Your task to perform on an android device: open app "Life360: Find Family & Friends" (install if not already installed), go to login, and select forgot password Image 0: 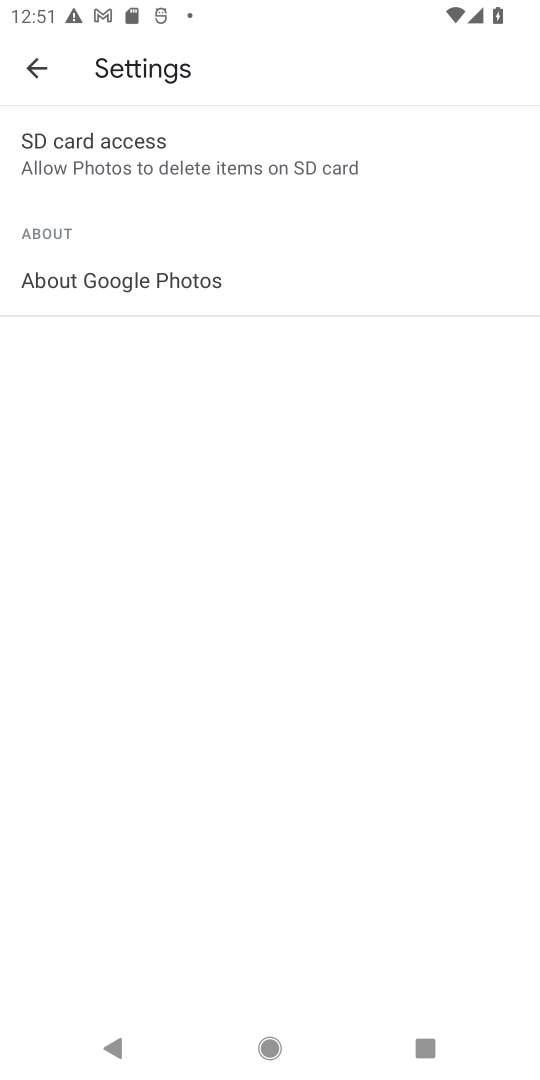
Step 0: press home button
Your task to perform on an android device: open app "Life360: Find Family & Friends" (install if not already installed), go to login, and select forgot password Image 1: 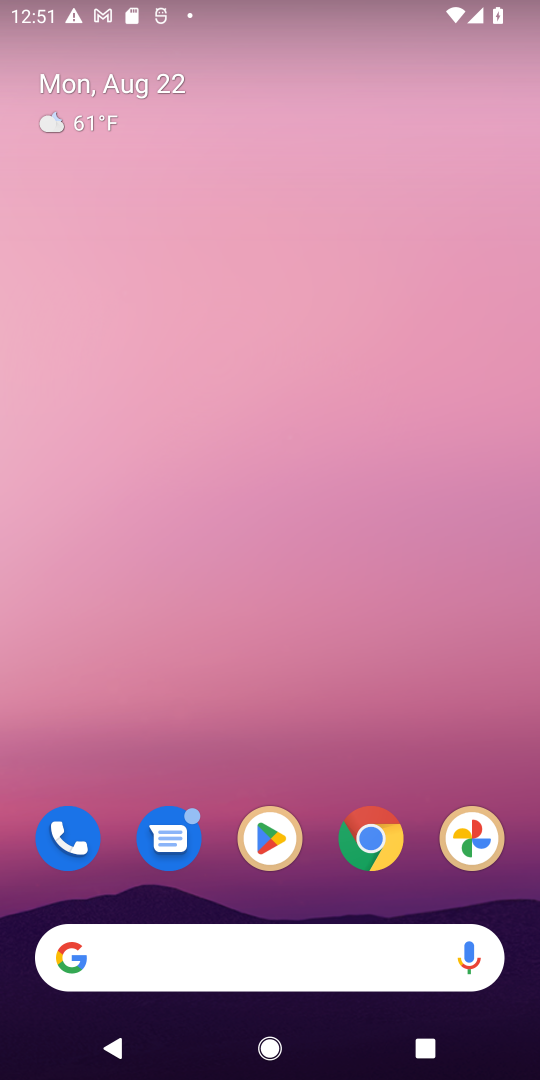
Step 1: click (268, 266)
Your task to perform on an android device: open app "Life360: Find Family & Friends" (install if not already installed), go to login, and select forgot password Image 2: 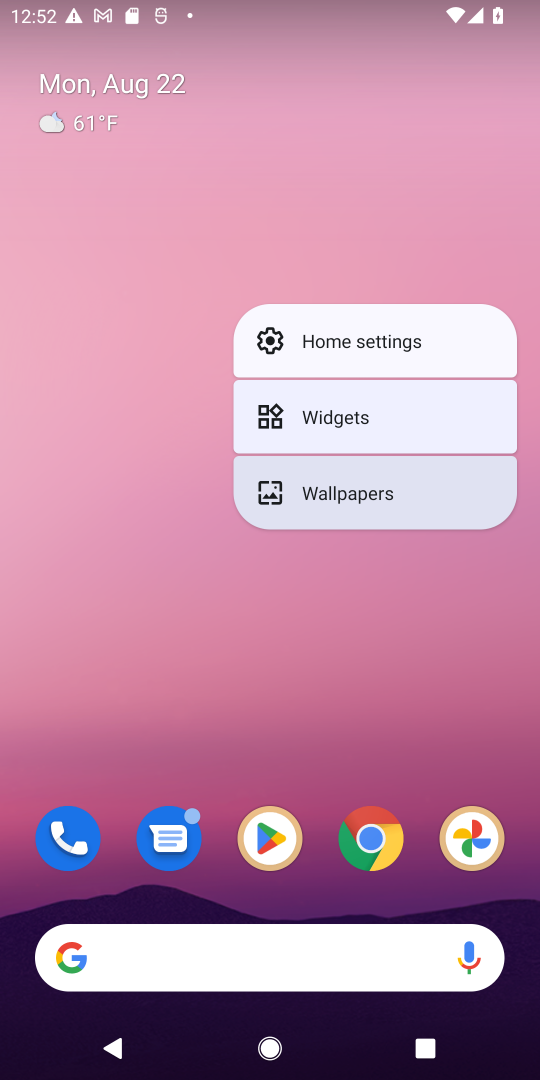
Step 2: drag from (276, 795) to (208, 188)
Your task to perform on an android device: open app "Life360: Find Family & Friends" (install if not already installed), go to login, and select forgot password Image 3: 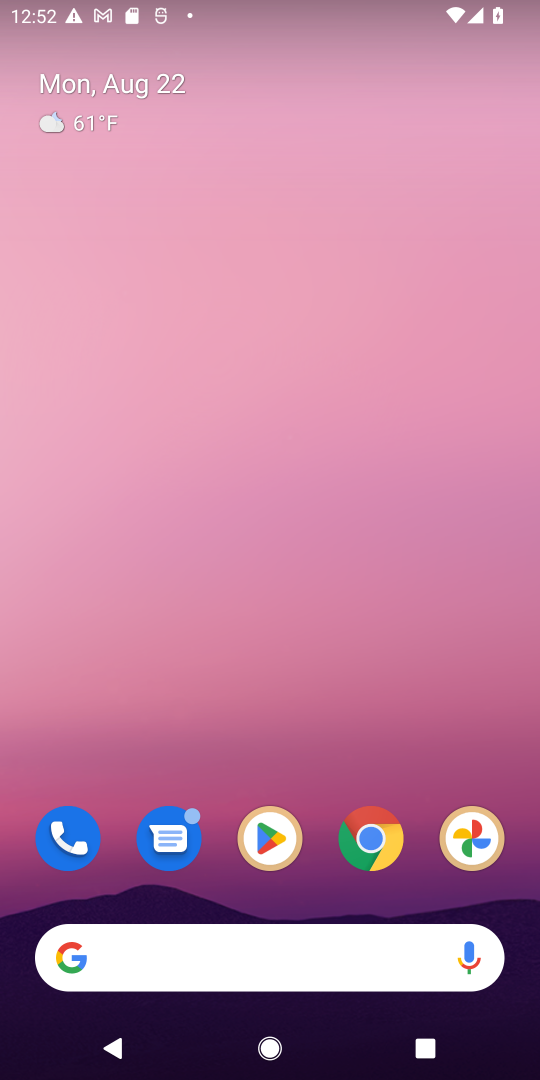
Step 3: drag from (259, 882) to (318, 354)
Your task to perform on an android device: open app "Life360: Find Family & Friends" (install if not already installed), go to login, and select forgot password Image 4: 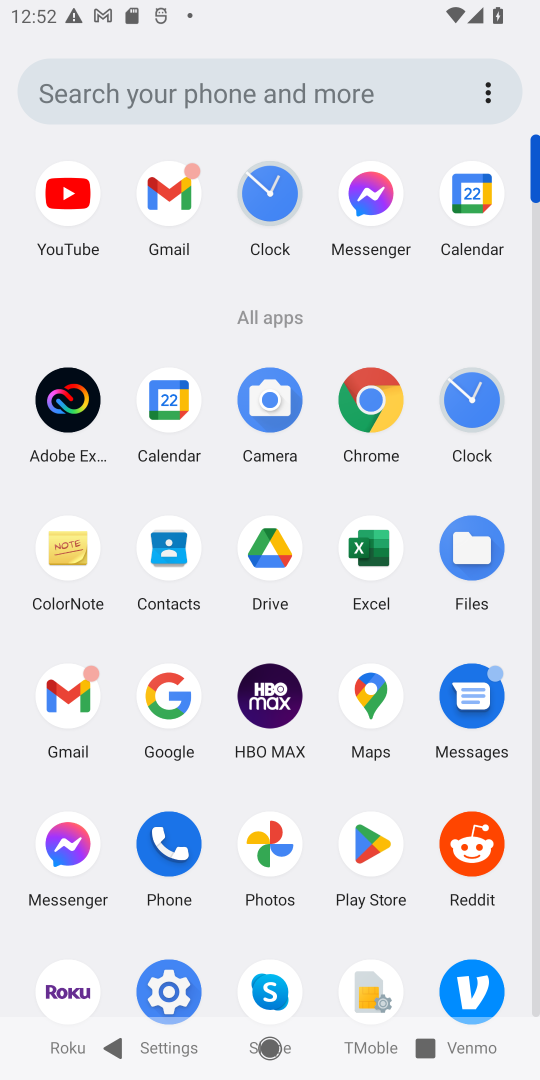
Step 4: click (364, 849)
Your task to perform on an android device: open app "Life360: Find Family & Friends" (install if not already installed), go to login, and select forgot password Image 5: 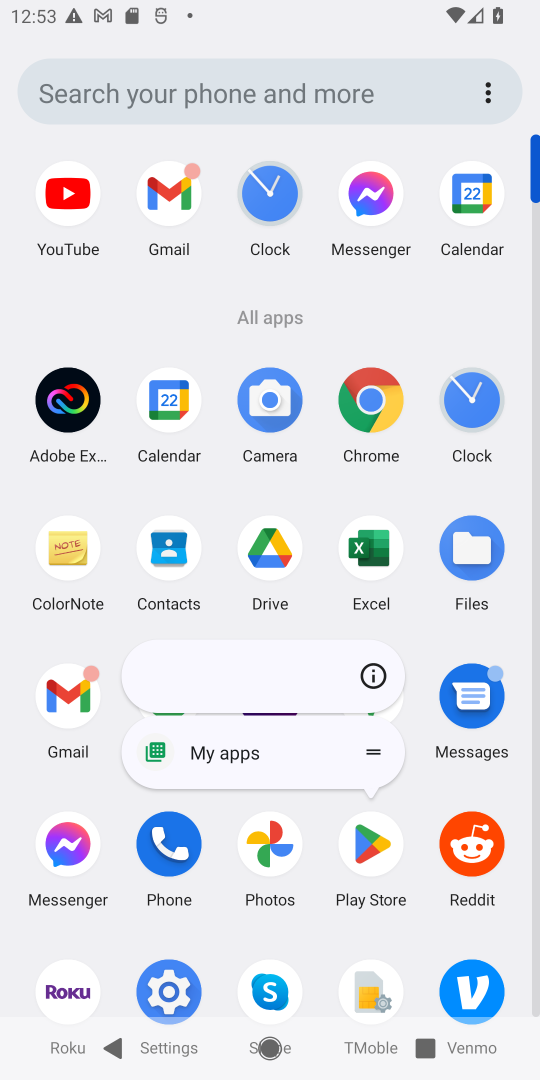
Step 5: click (360, 853)
Your task to perform on an android device: open app "Life360: Find Family & Friends" (install if not already installed), go to login, and select forgot password Image 6: 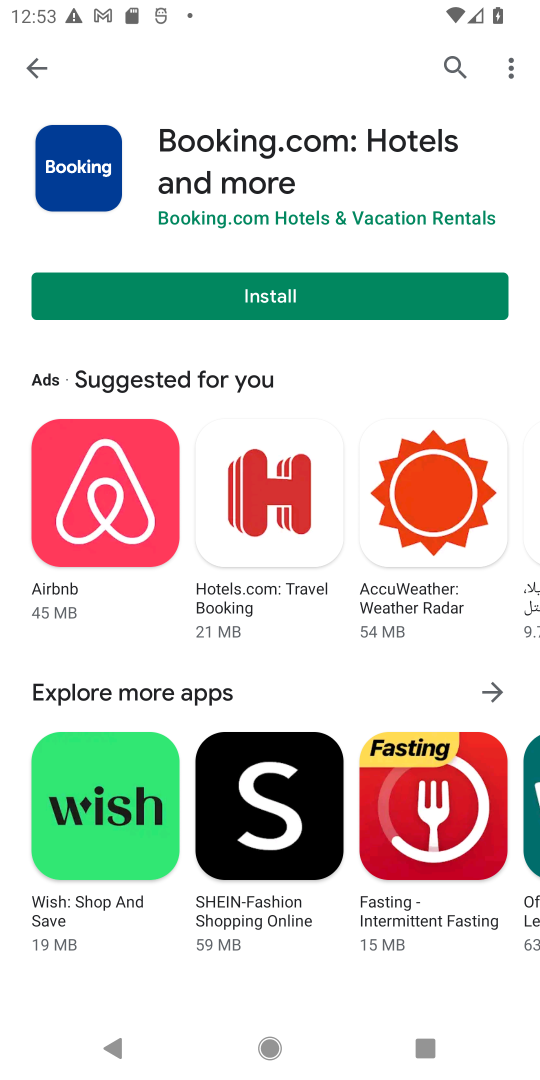
Step 6: click (514, 74)
Your task to perform on an android device: open app "Life360: Find Family & Friends" (install if not already installed), go to login, and select forgot password Image 7: 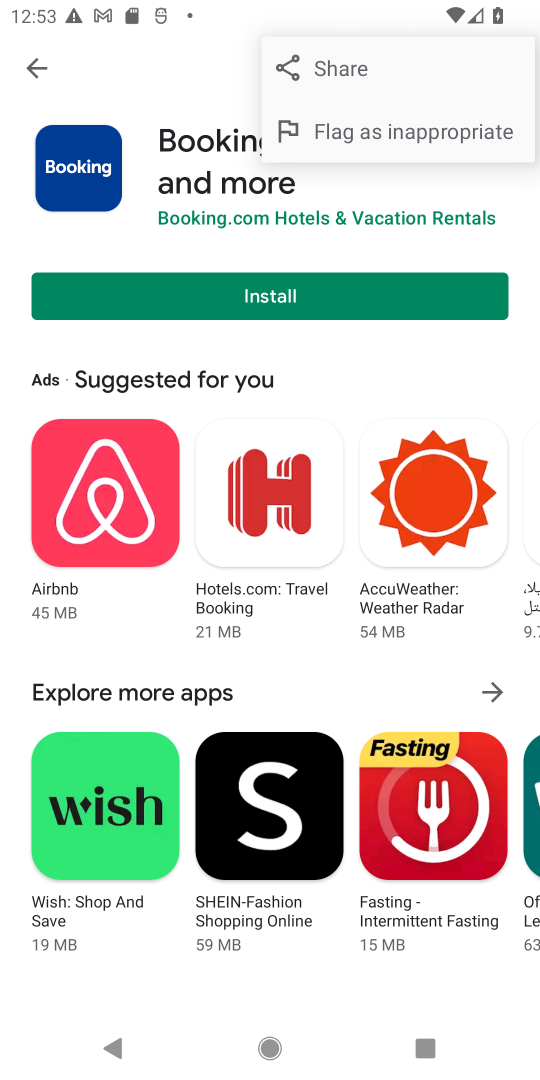
Step 7: click (228, 93)
Your task to perform on an android device: open app "Life360: Find Family & Friends" (install if not already installed), go to login, and select forgot password Image 8: 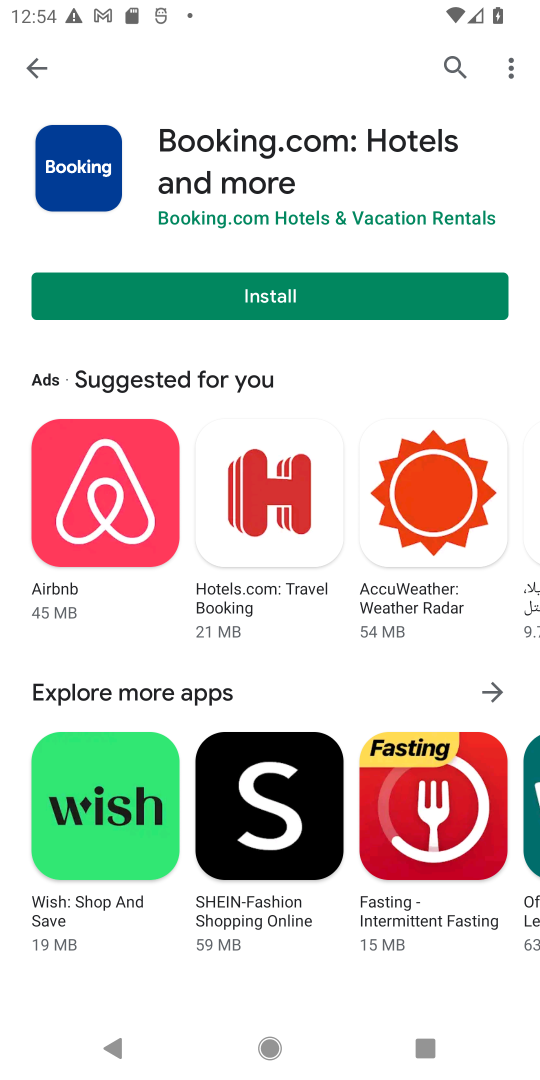
Step 8: click (440, 78)
Your task to perform on an android device: open app "Life360: Find Family & Friends" (install if not already installed), go to login, and select forgot password Image 9: 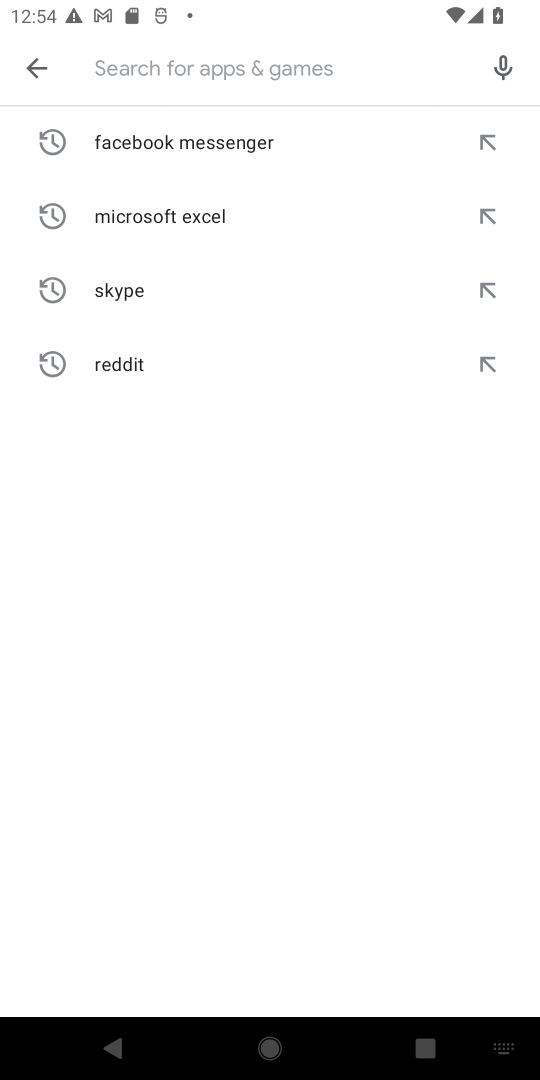
Step 9: type "Life360: Find Family & Friends"
Your task to perform on an android device: open app "Life360: Find Family & Friends" (install if not already installed), go to login, and select forgot password Image 10: 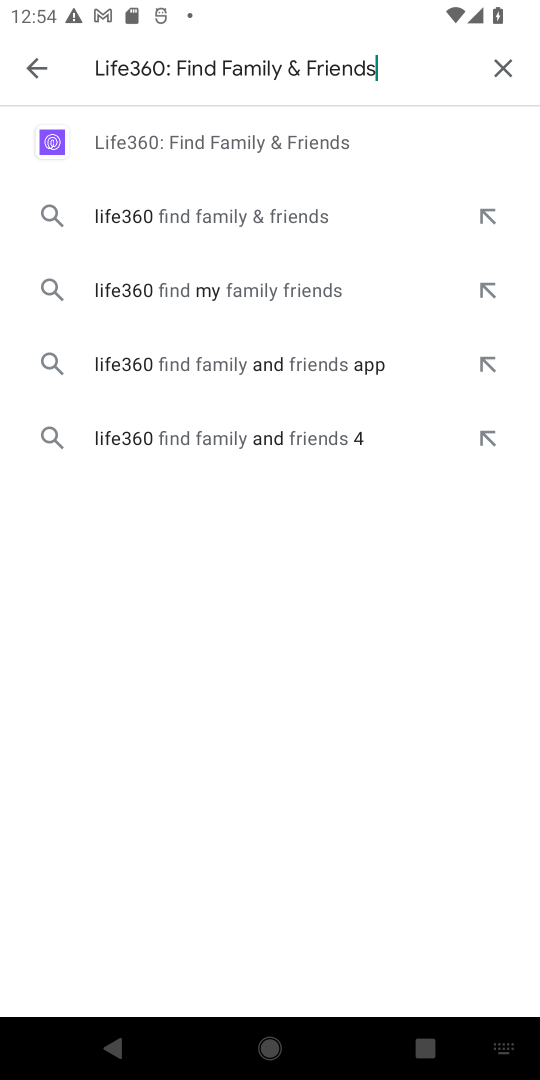
Step 10: click (192, 132)
Your task to perform on an android device: open app "Life360: Find Family & Friends" (install if not already installed), go to login, and select forgot password Image 11: 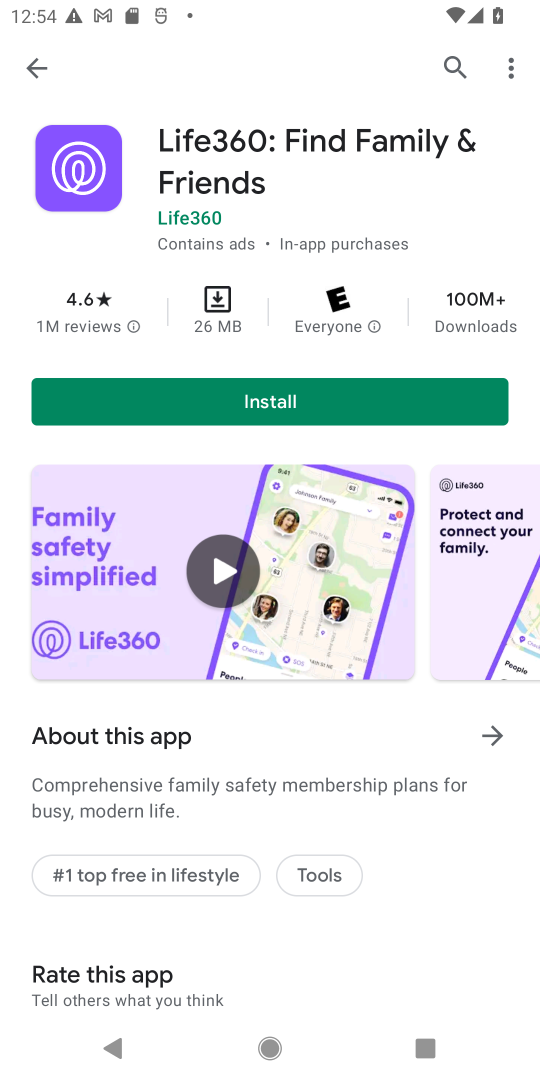
Step 11: click (284, 392)
Your task to perform on an android device: open app "Life360: Find Family & Friends" (install if not already installed), go to login, and select forgot password Image 12: 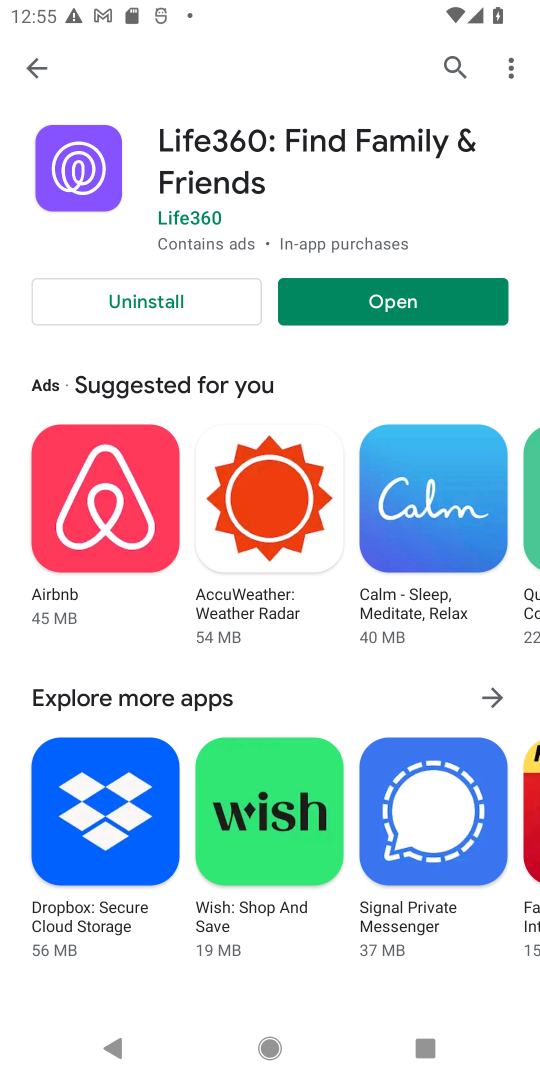
Step 12: click (443, 303)
Your task to perform on an android device: open app "Life360: Find Family & Friends" (install if not already installed), go to login, and select forgot password Image 13: 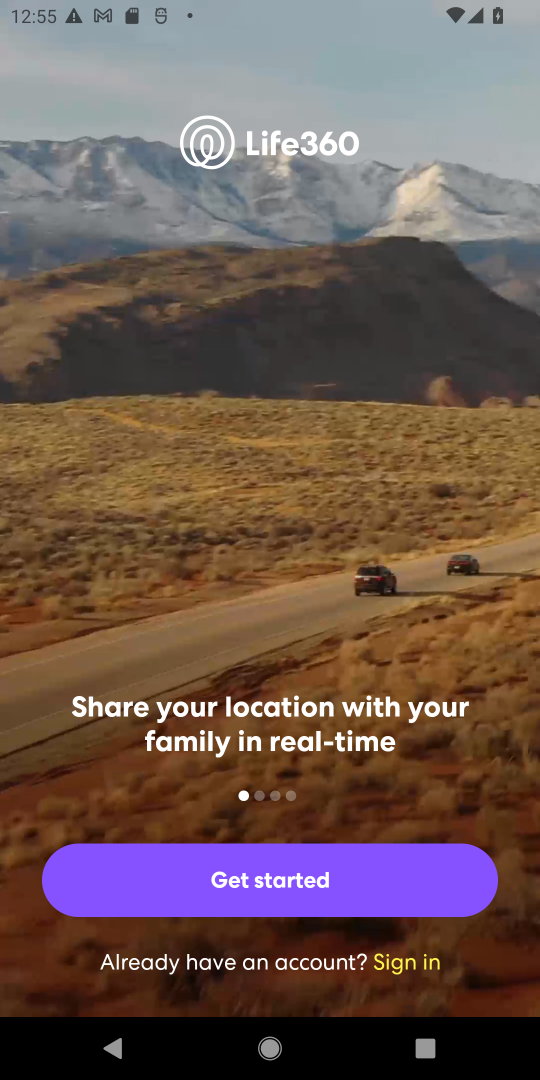
Step 13: task complete